Your task to perform on an android device: What's on my calendar today? Image 0: 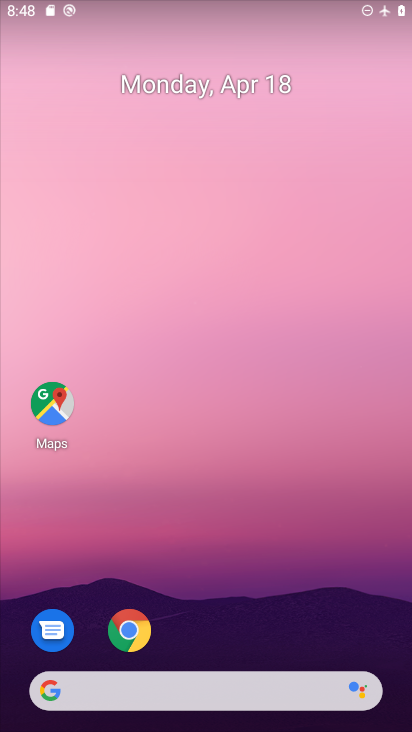
Step 0: drag from (211, 643) to (274, 250)
Your task to perform on an android device: What's on my calendar today? Image 1: 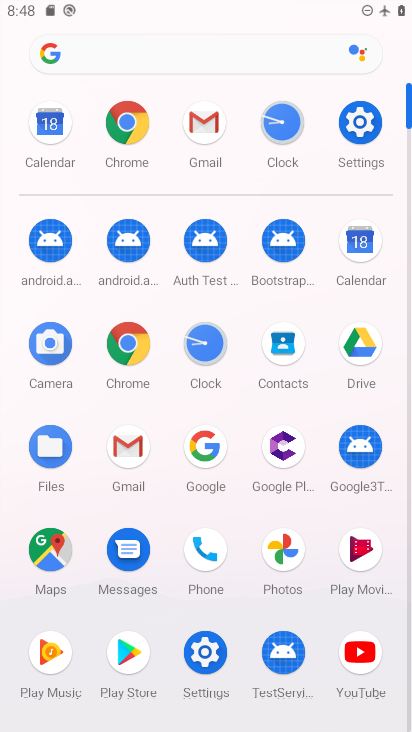
Step 1: click (360, 240)
Your task to perform on an android device: What's on my calendar today? Image 2: 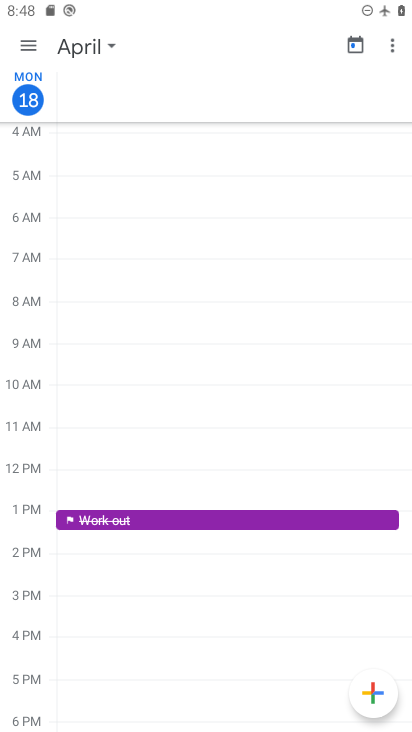
Step 2: task complete